Your task to perform on an android device: Open Reddit.com Image 0: 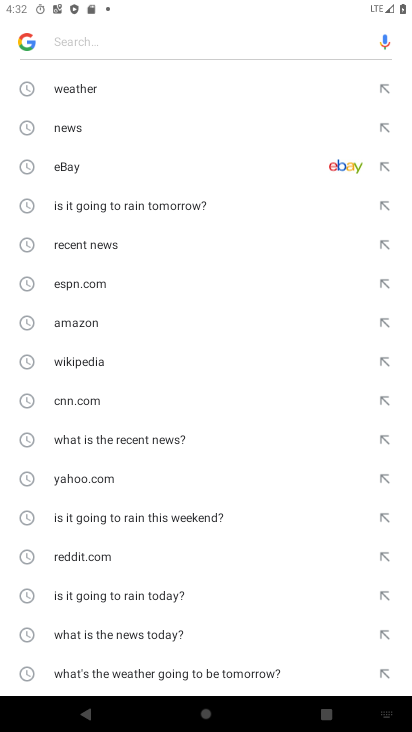
Step 0: type "reddit.com"
Your task to perform on an android device: Open Reddit.com Image 1: 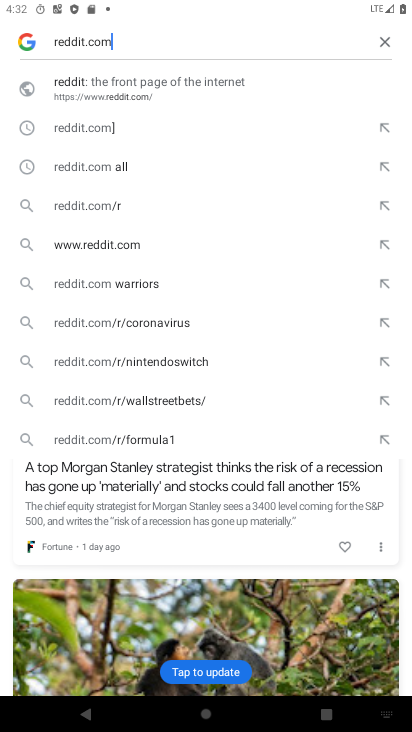
Step 1: click (114, 91)
Your task to perform on an android device: Open Reddit.com Image 2: 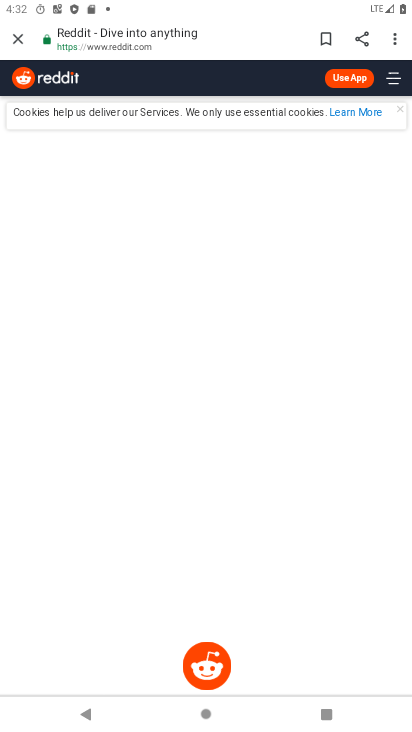
Step 2: task complete